Your task to perform on an android device: Go to calendar. Show me events next week Image 0: 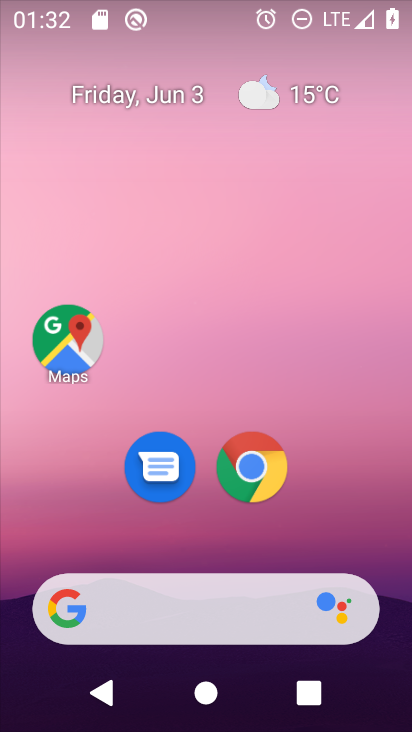
Step 0: drag from (394, 624) to (300, 13)
Your task to perform on an android device: Go to calendar. Show me events next week Image 1: 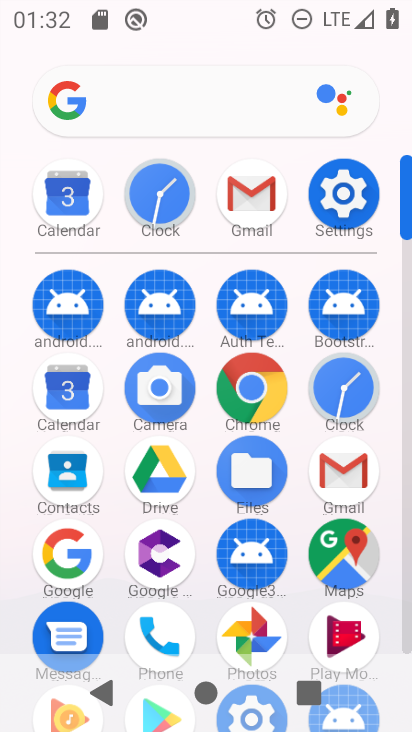
Step 1: click (409, 610)
Your task to perform on an android device: Go to calendar. Show me events next week Image 2: 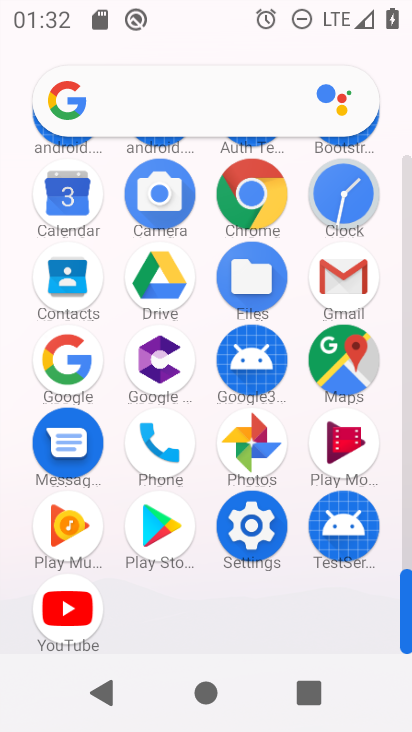
Step 2: click (63, 194)
Your task to perform on an android device: Go to calendar. Show me events next week Image 3: 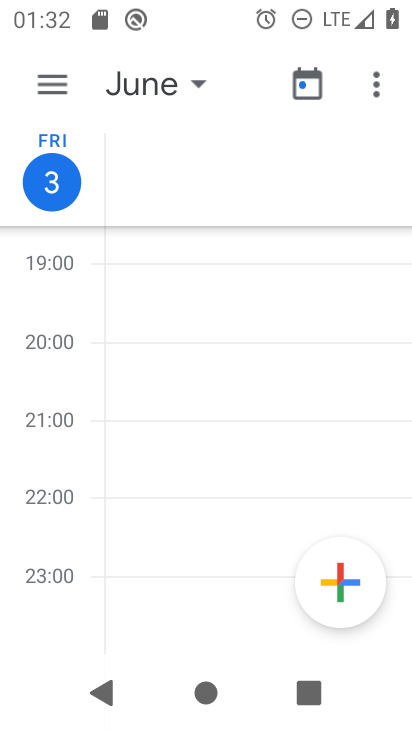
Step 3: click (58, 82)
Your task to perform on an android device: Go to calendar. Show me events next week Image 4: 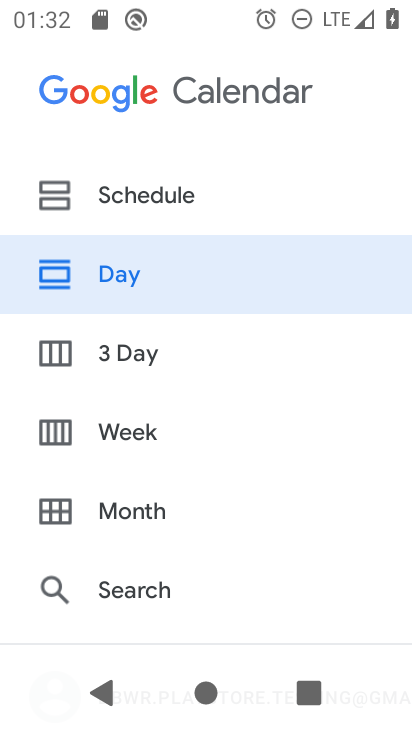
Step 4: click (146, 435)
Your task to perform on an android device: Go to calendar. Show me events next week Image 5: 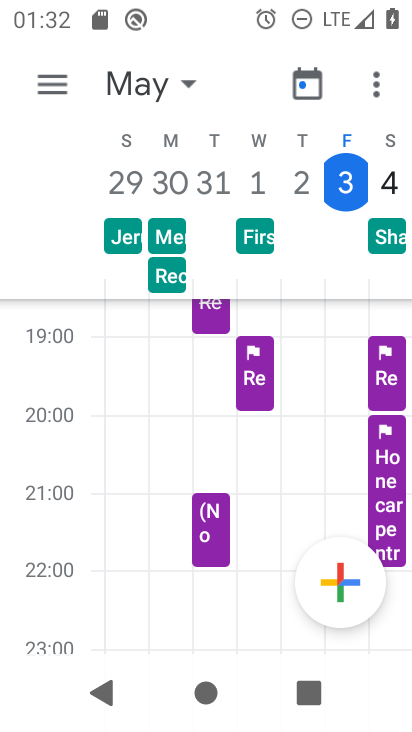
Step 5: task complete